Your task to perform on an android device: Search for Mexican restaurants on Maps Image 0: 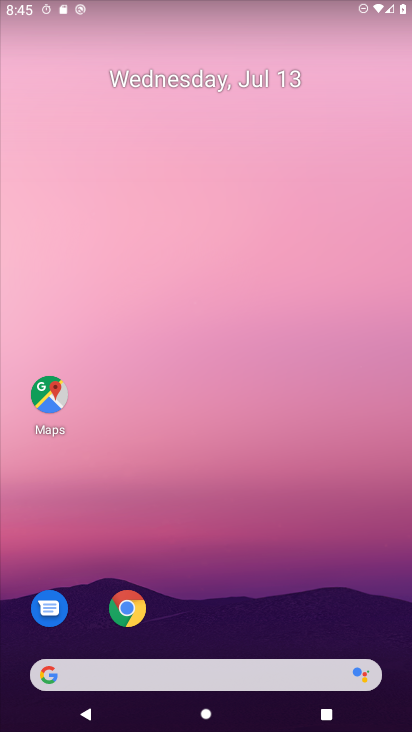
Step 0: click (177, 239)
Your task to perform on an android device: Search for Mexican restaurants on Maps Image 1: 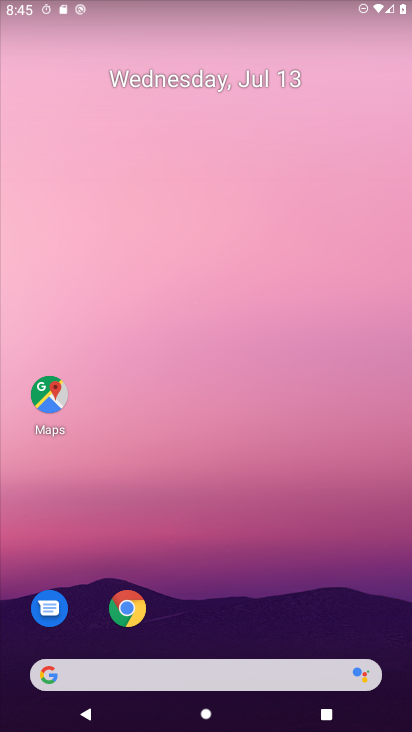
Step 1: drag from (246, 624) to (126, 131)
Your task to perform on an android device: Search for Mexican restaurants on Maps Image 2: 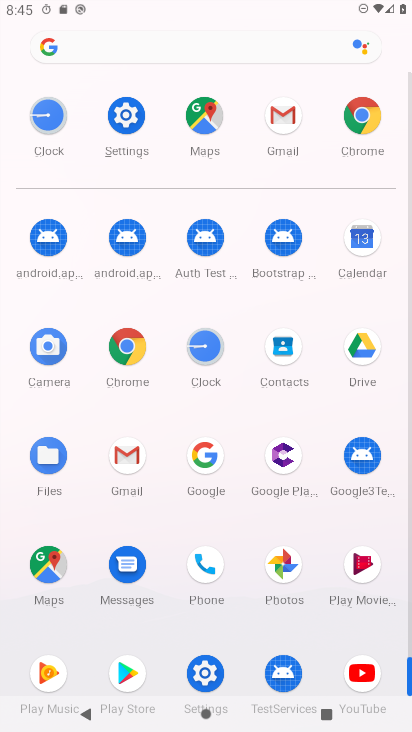
Step 2: click (44, 555)
Your task to perform on an android device: Search for Mexican restaurants on Maps Image 3: 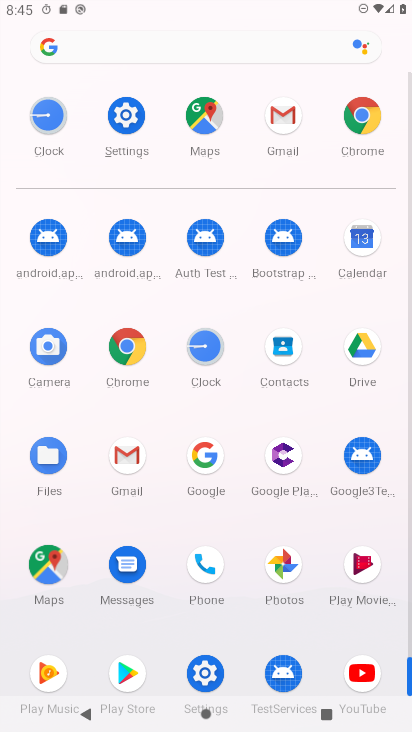
Step 3: click (45, 554)
Your task to perform on an android device: Search for Mexican restaurants on Maps Image 4: 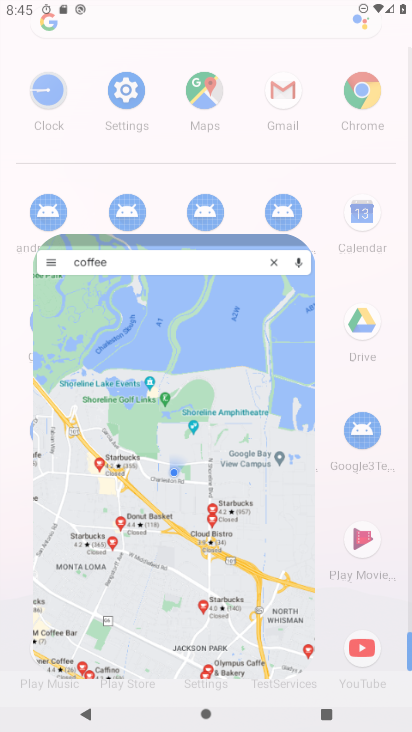
Step 4: click (49, 554)
Your task to perform on an android device: Search for Mexican restaurants on Maps Image 5: 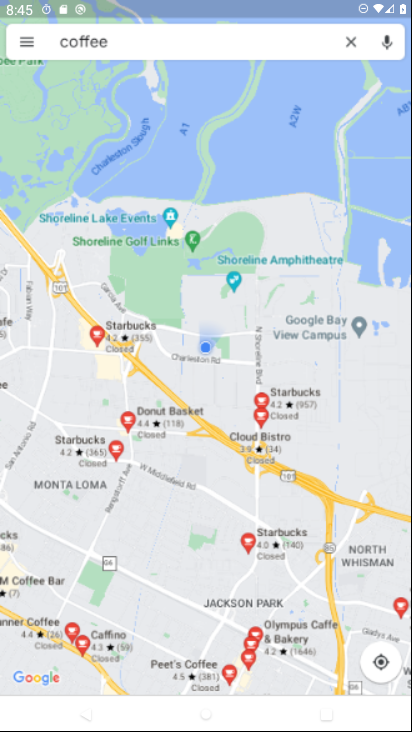
Step 5: click (48, 556)
Your task to perform on an android device: Search for Mexican restaurants on Maps Image 6: 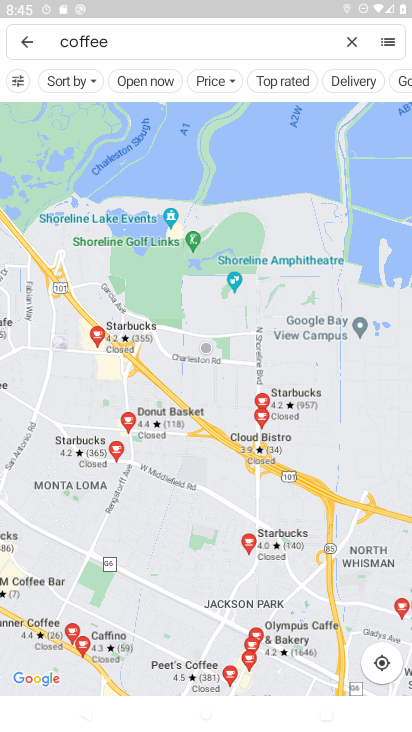
Step 6: click (124, 41)
Your task to perform on an android device: Search for Mexican restaurants on Maps Image 7: 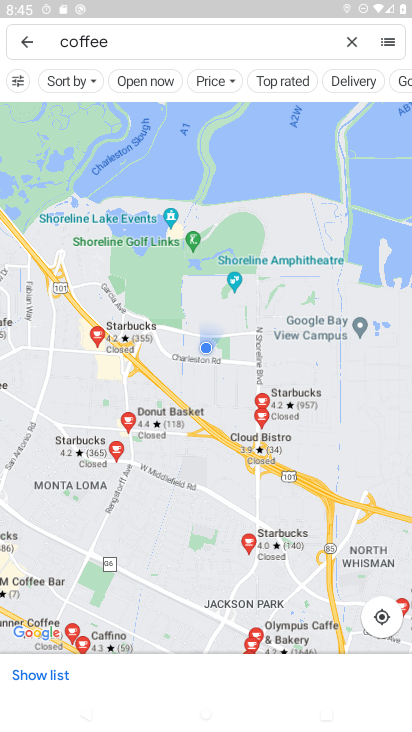
Step 7: click (354, 39)
Your task to perform on an android device: Search for Mexican restaurants on Maps Image 8: 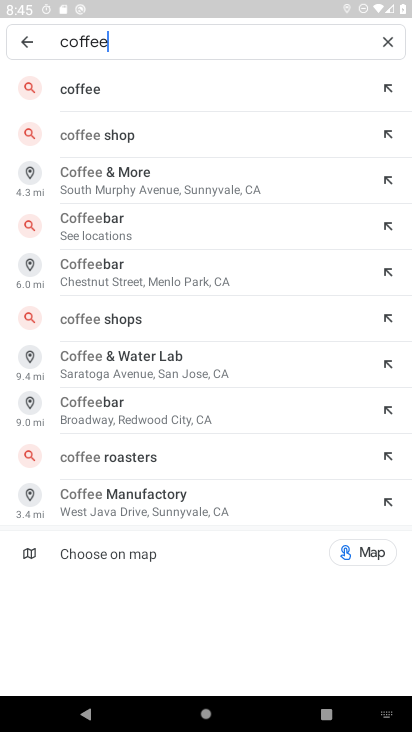
Step 8: click (391, 44)
Your task to perform on an android device: Search for Mexican restaurants on Maps Image 9: 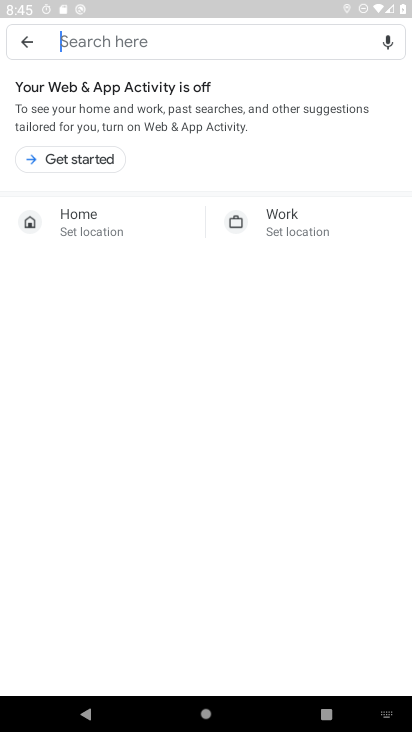
Step 9: type "Mexican restaurants"
Your task to perform on an android device: Search for Mexican restaurants on Maps Image 10: 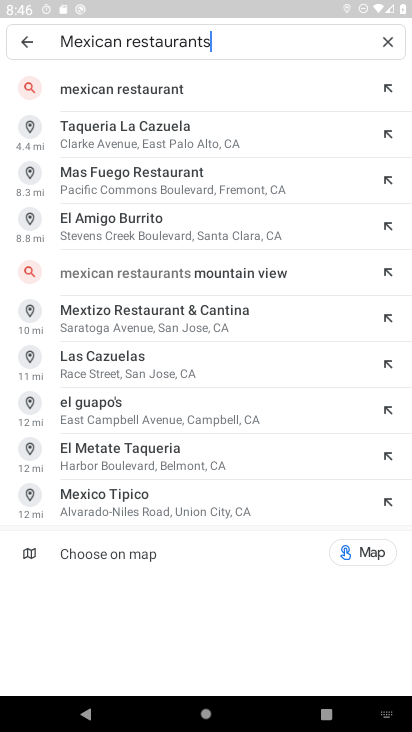
Step 10: click (125, 86)
Your task to perform on an android device: Search for Mexican restaurants on Maps Image 11: 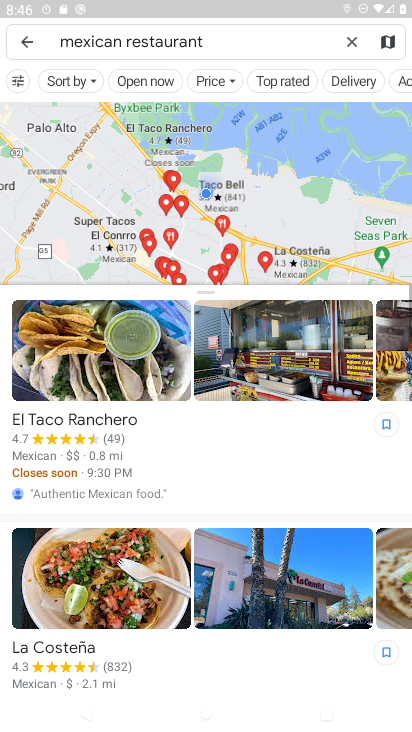
Step 11: task complete